Your task to perform on an android device: set an alarm Image 0: 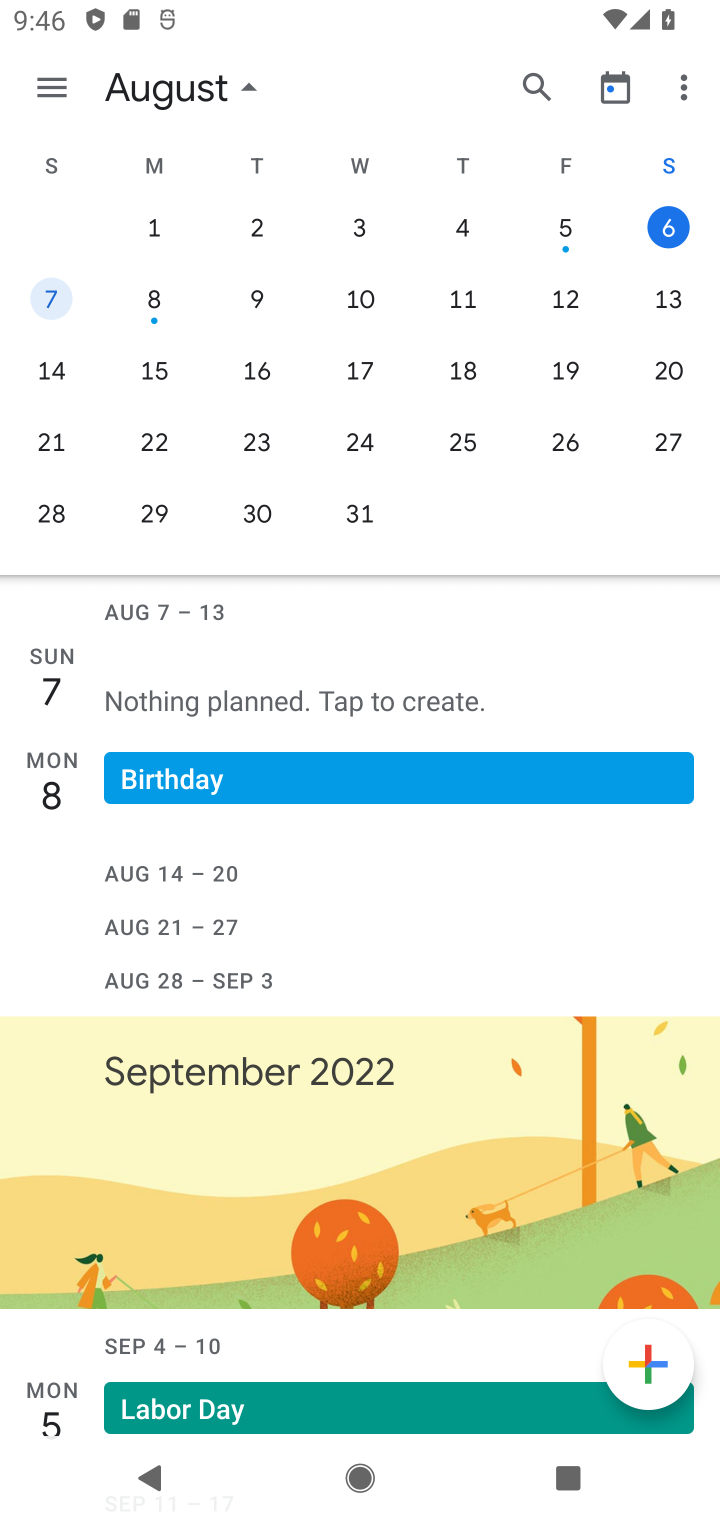
Step 0: press home button
Your task to perform on an android device: set an alarm Image 1: 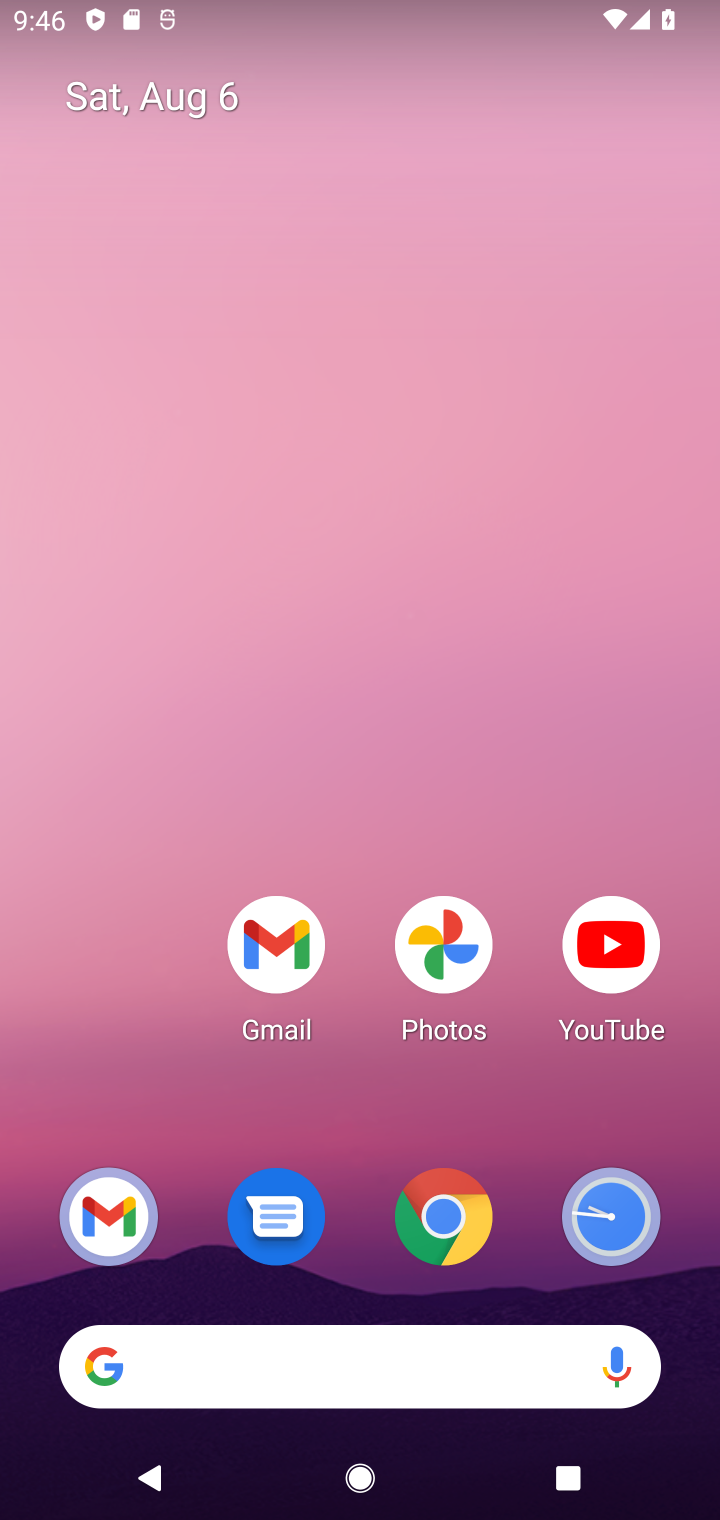
Step 1: click (596, 1209)
Your task to perform on an android device: set an alarm Image 2: 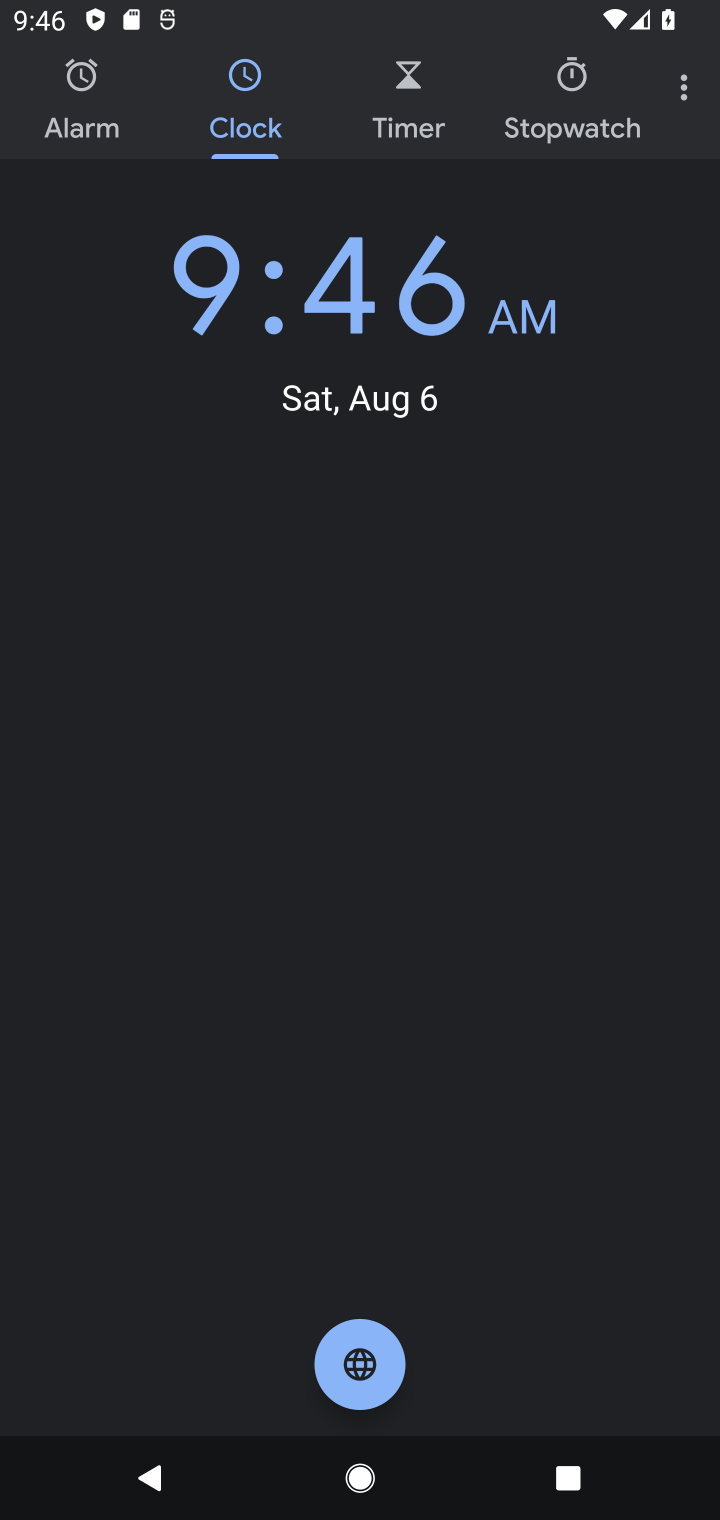
Step 2: click (91, 95)
Your task to perform on an android device: set an alarm Image 3: 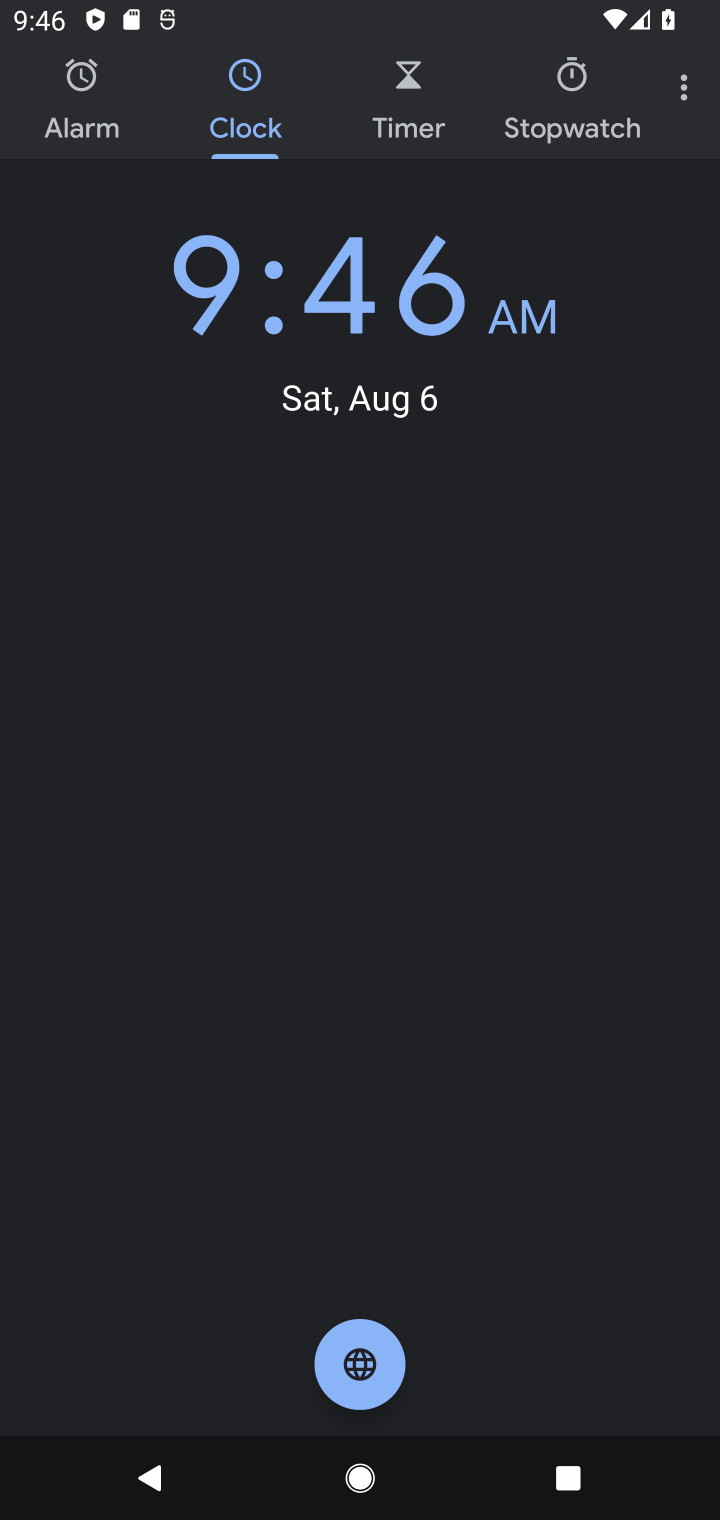
Step 3: click (77, 125)
Your task to perform on an android device: set an alarm Image 4: 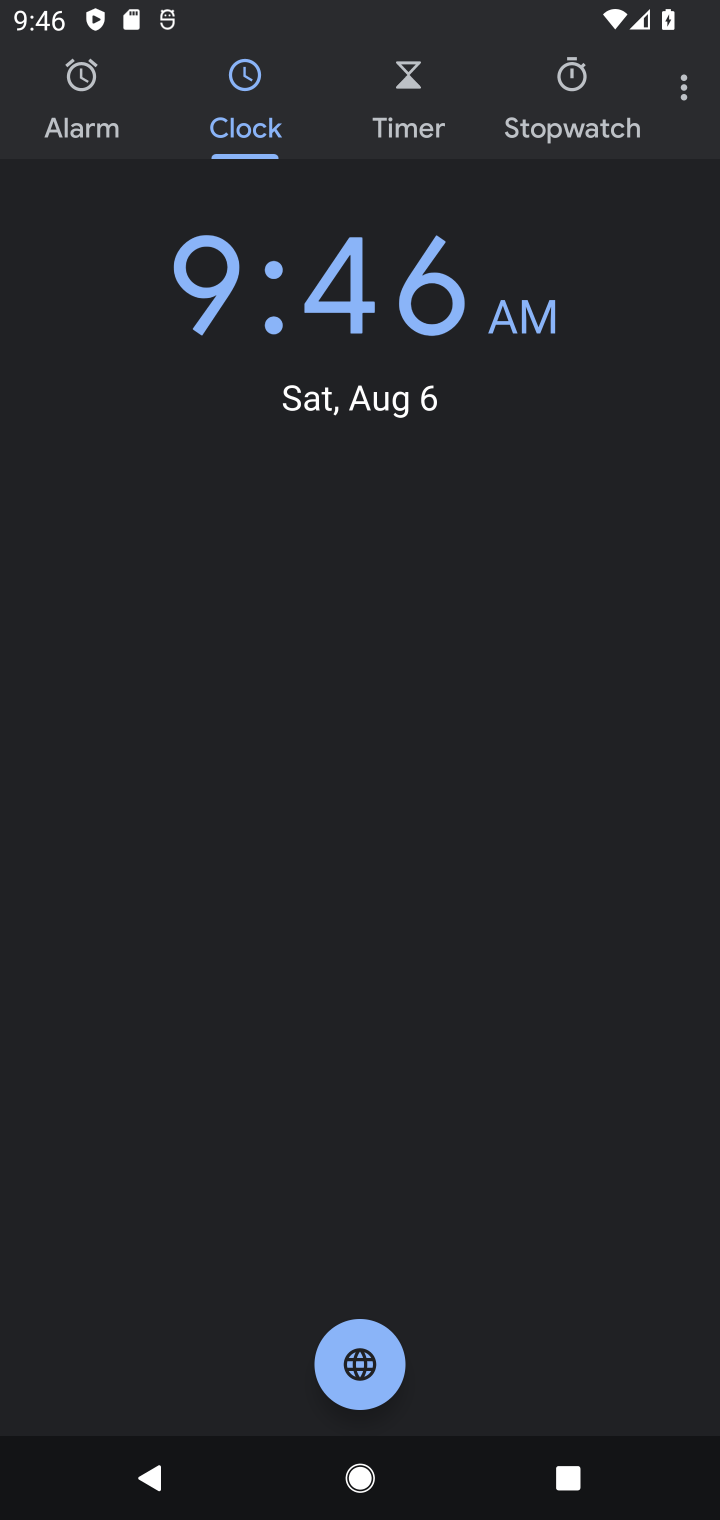
Step 4: click (46, 121)
Your task to perform on an android device: set an alarm Image 5: 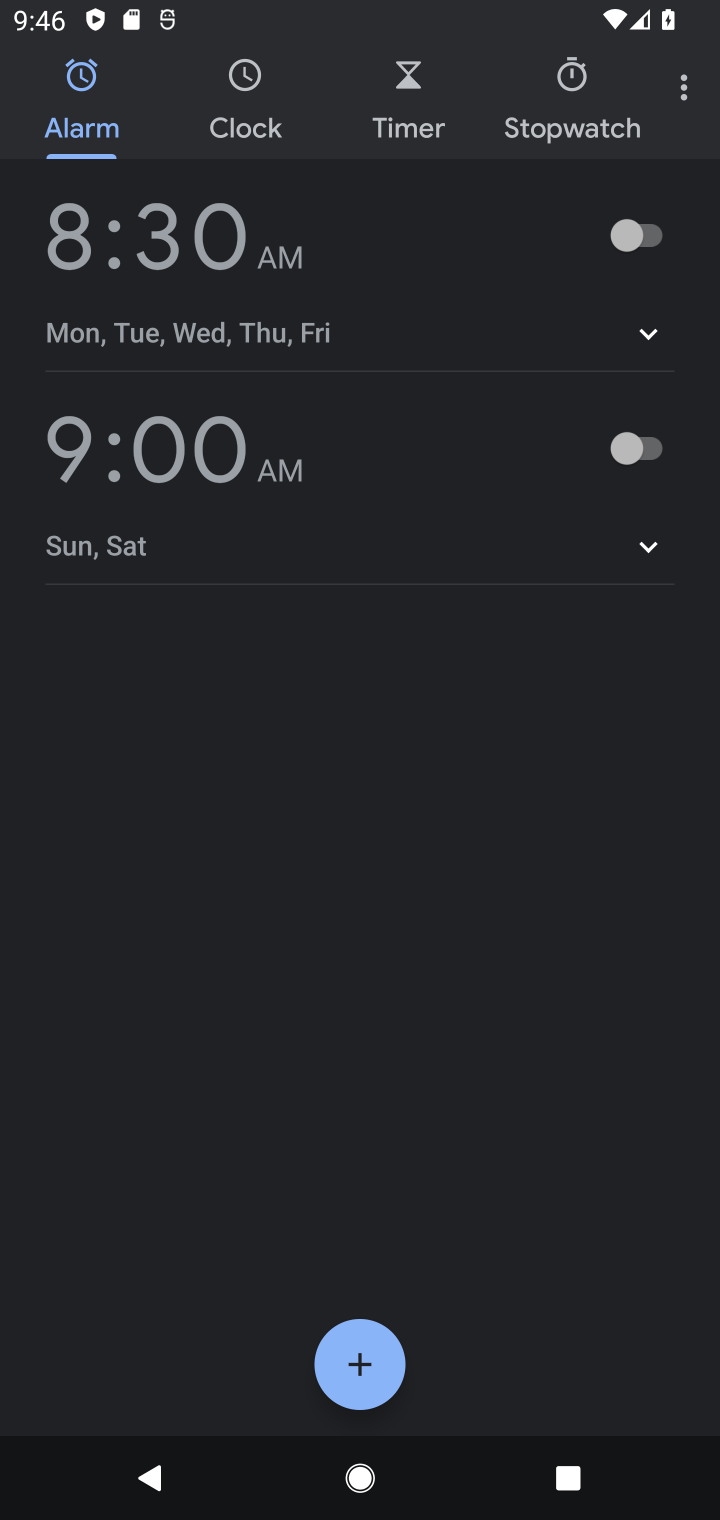
Step 5: click (385, 1372)
Your task to perform on an android device: set an alarm Image 6: 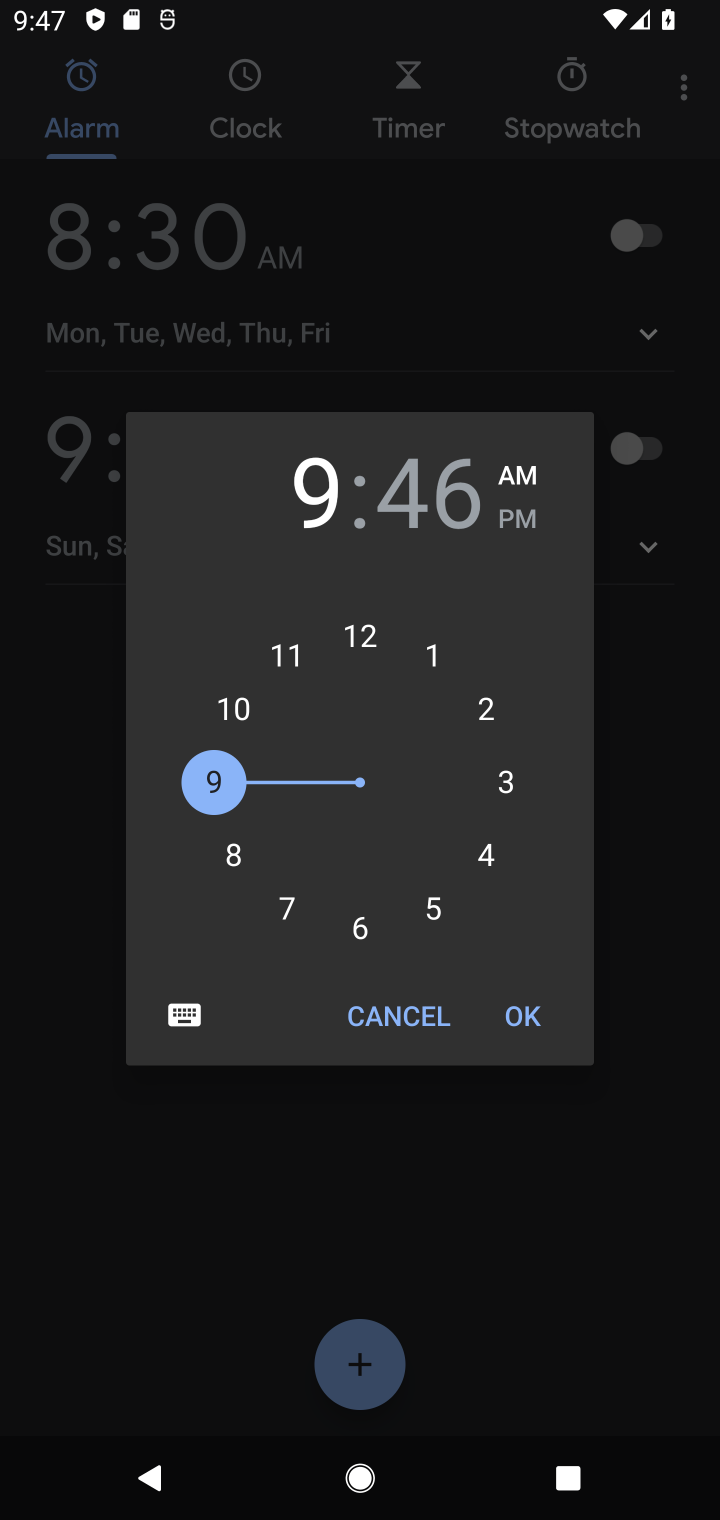
Step 6: click (429, 501)
Your task to perform on an android device: set an alarm Image 7: 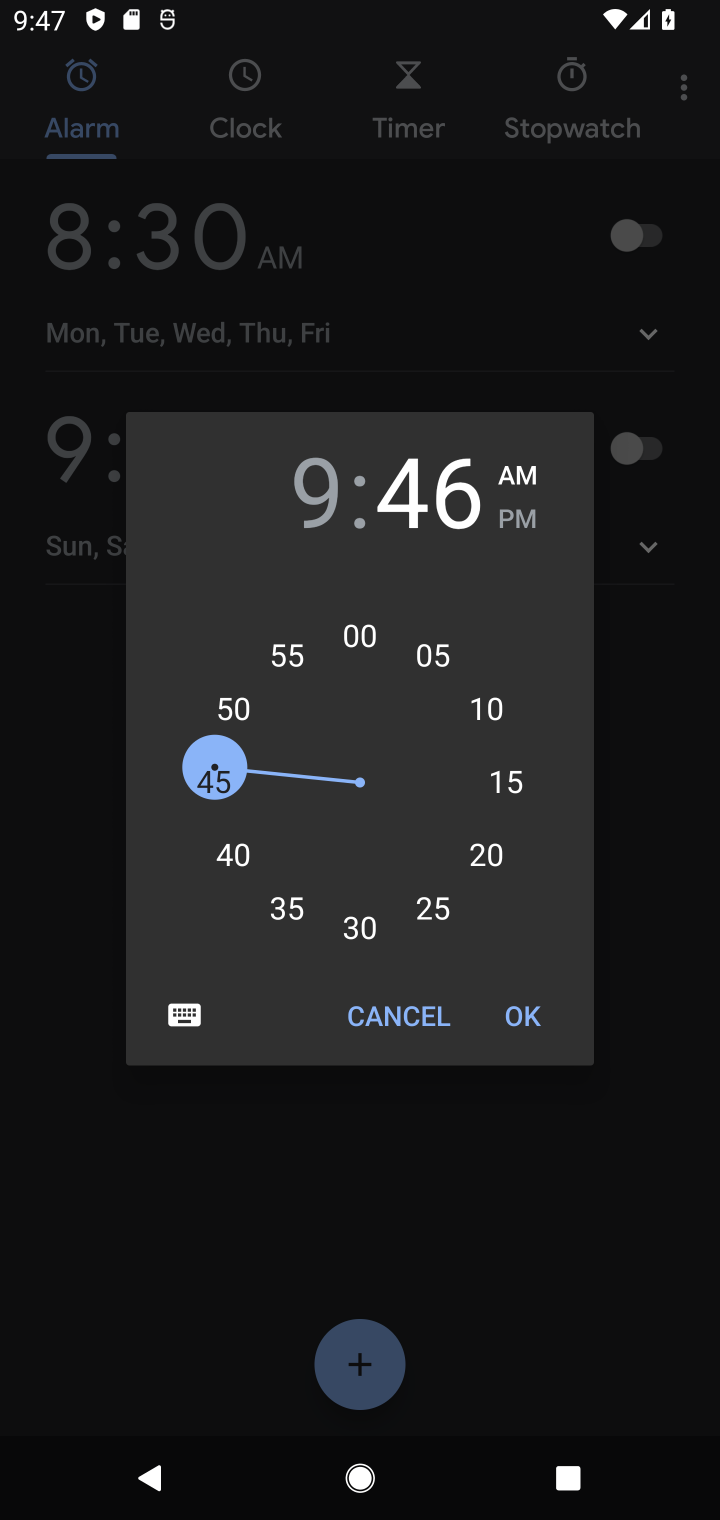
Step 7: click (376, 642)
Your task to perform on an android device: set an alarm Image 8: 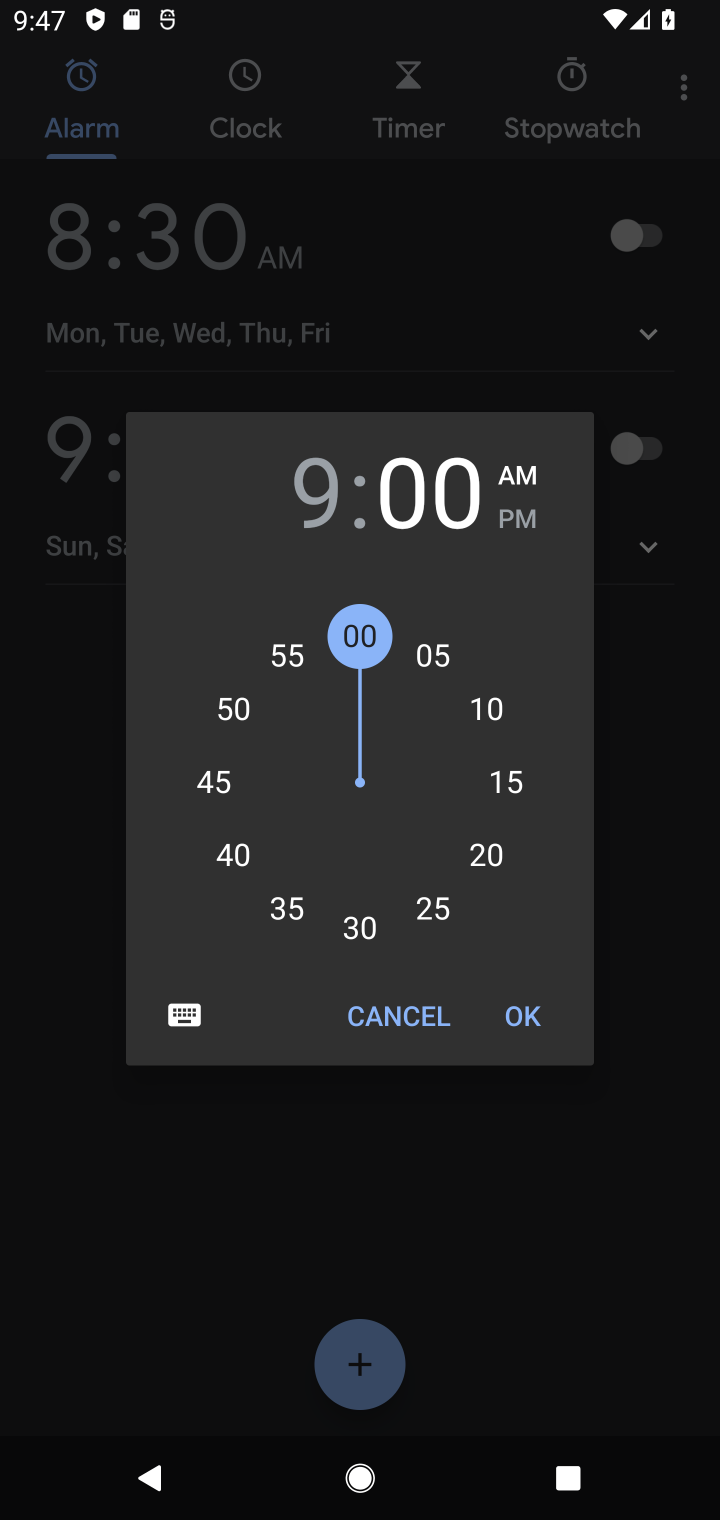
Step 8: click (507, 531)
Your task to perform on an android device: set an alarm Image 9: 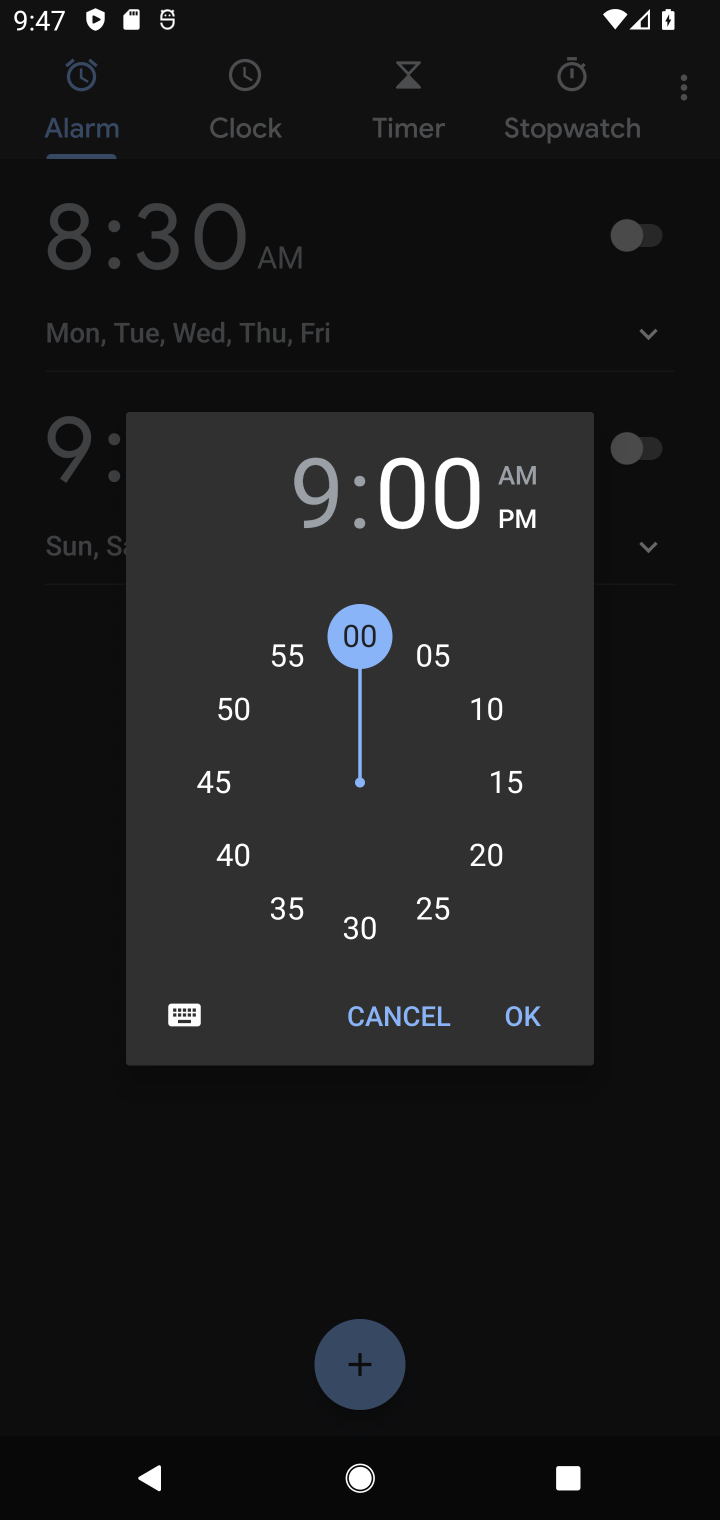
Step 9: click (536, 996)
Your task to perform on an android device: set an alarm Image 10: 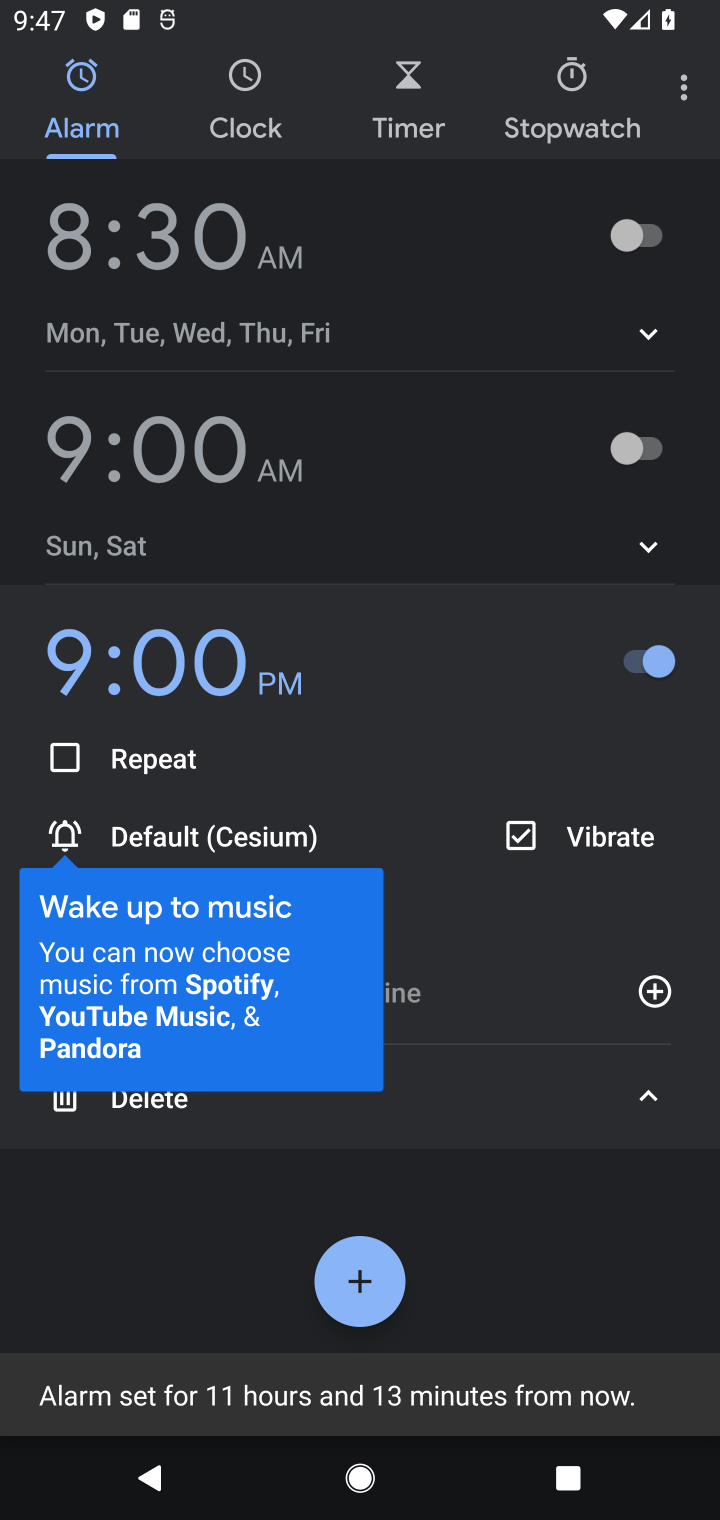
Step 10: task complete